Your task to perform on an android device: Show me recent news Image 0: 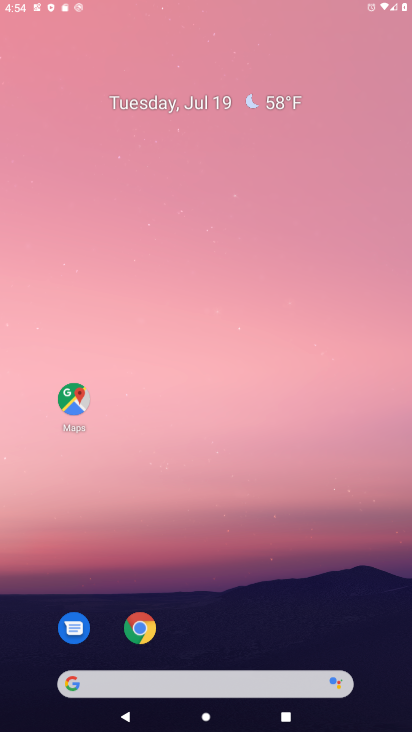
Step 0: press back button
Your task to perform on an android device: Show me recent news Image 1: 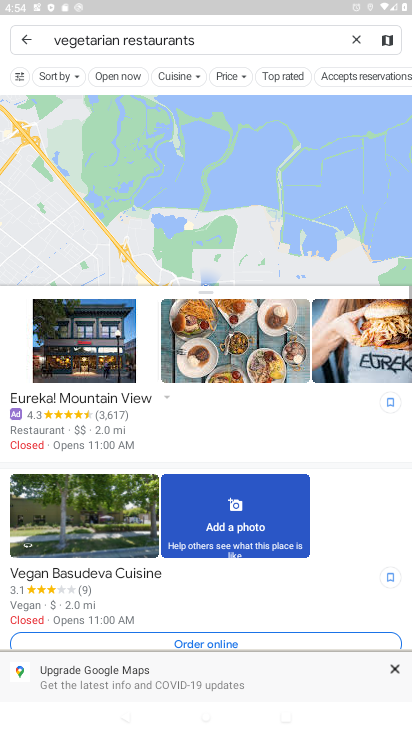
Step 1: drag from (218, 547) to (200, 141)
Your task to perform on an android device: Show me recent news Image 2: 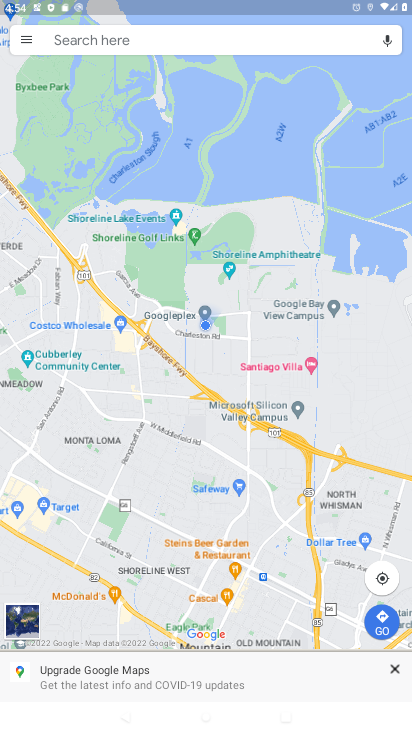
Step 2: press back button
Your task to perform on an android device: Show me recent news Image 3: 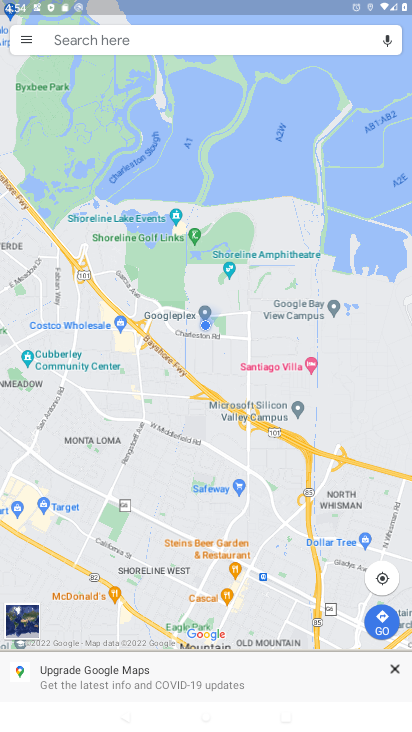
Step 3: press back button
Your task to perform on an android device: Show me recent news Image 4: 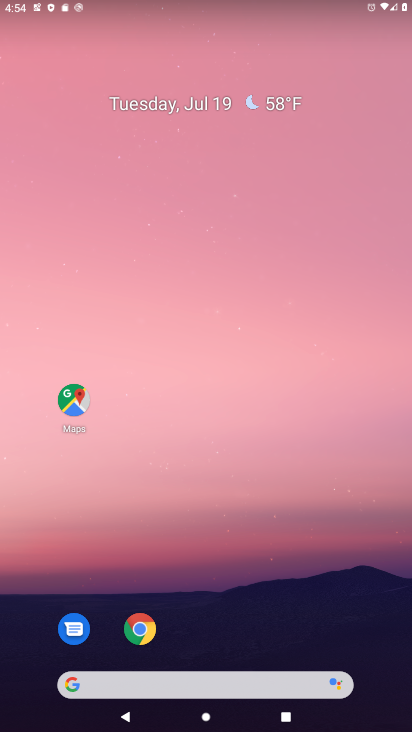
Step 4: drag from (226, 623) to (140, 12)
Your task to perform on an android device: Show me recent news Image 5: 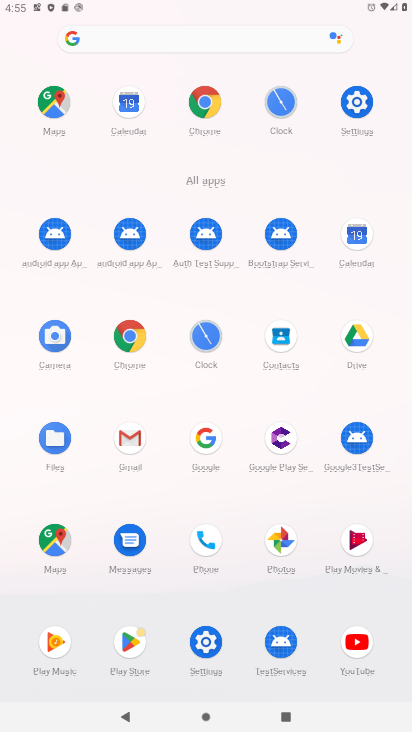
Step 5: click (205, 109)
Your task to perform on an android device: Show me recent news Image 6: 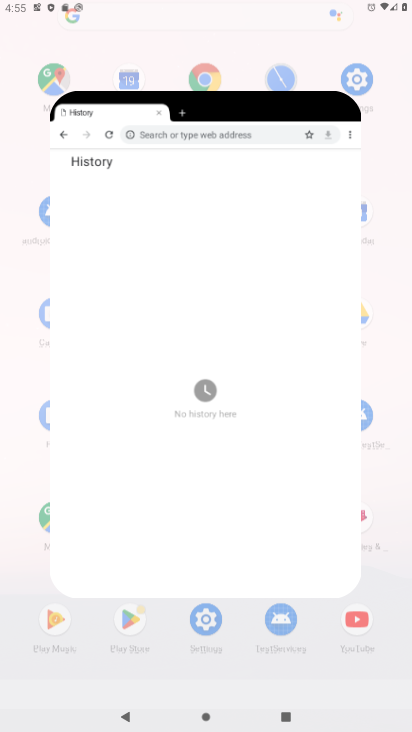
Step 6: click (206, 109)
Your task to perform on an android device: Show me recent news Image 7: 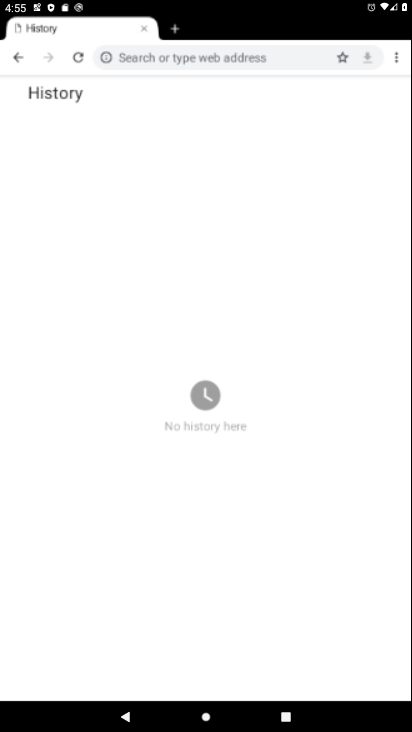
Step 7: click (206, 109)
Your task to perform on an android device: Show me recent news Image 8: 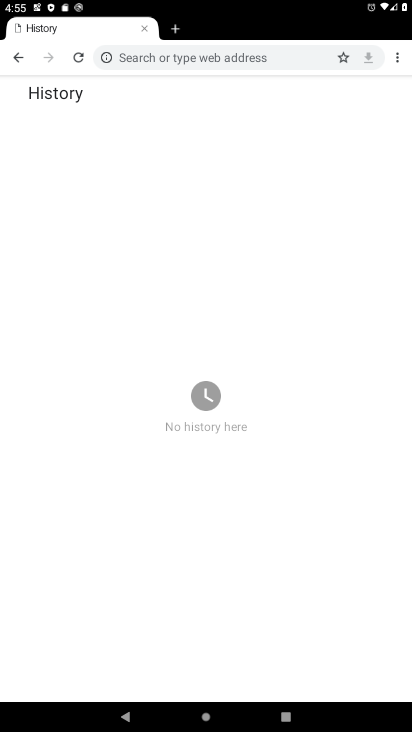
Step 8: click (143, 26)
Your task to perform on an android device: Show me recent news Image 9: 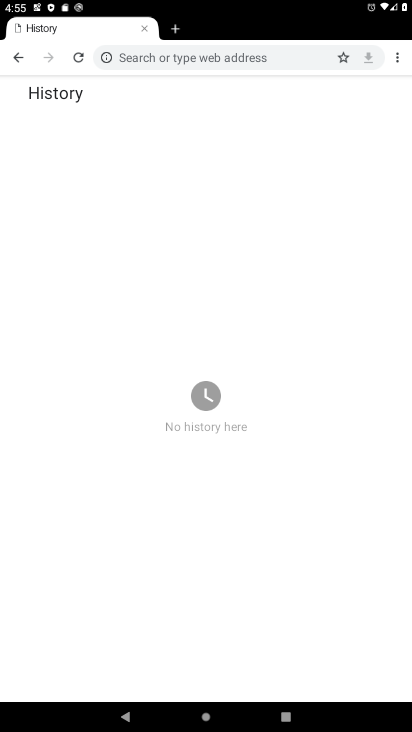
Step 9: click (145, 40)
Your task to perform on an android device: Show me recent news Image 10: 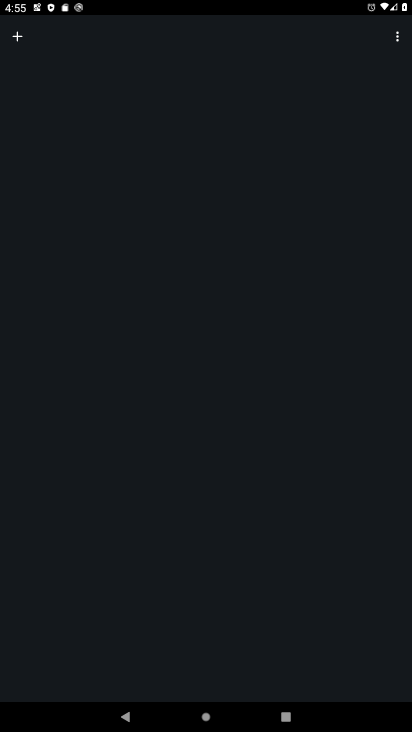
Step 10: press back button
Your task to perform on an android device: Show me recent news Image 11: 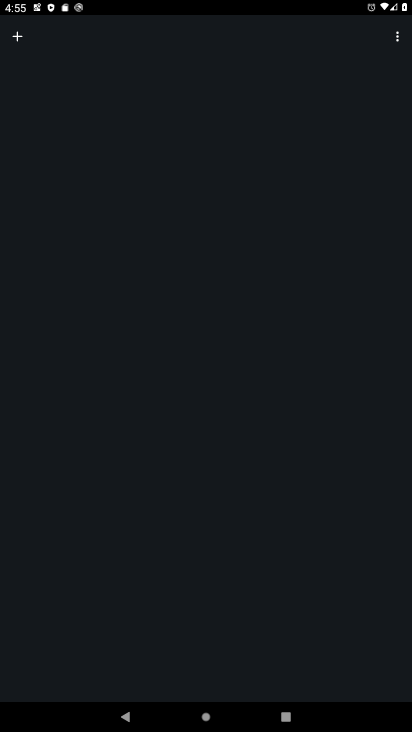
Step 11: press back button
Your task to perform on an android device: Show me recent news Image 12: 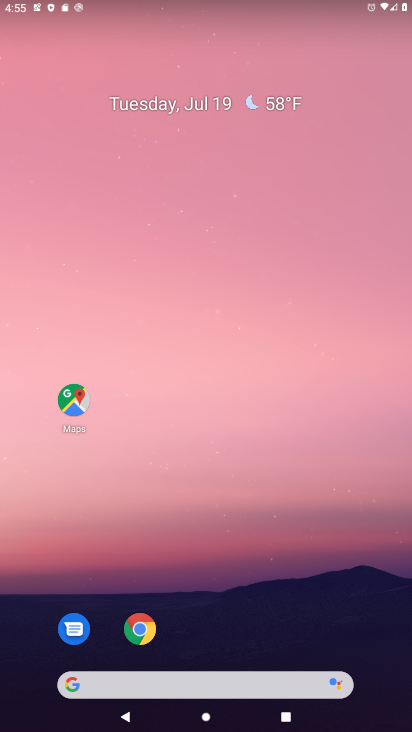
Step 12: drag from (213, 177) to (194, 117)
Your task to perform on an android device: Show me recent news Image 13: 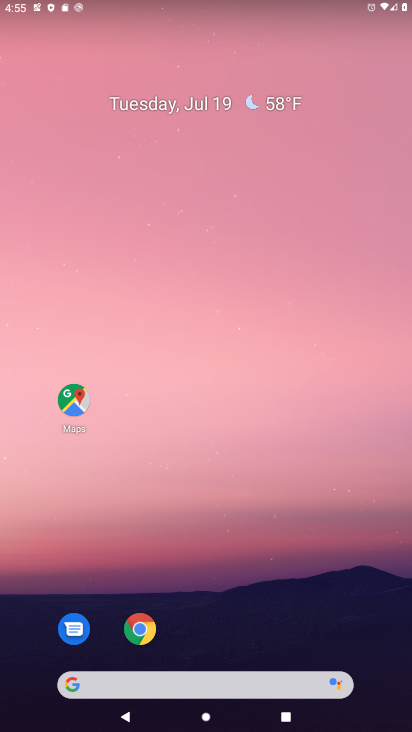
Step 13: drag from (233, 665) to (262, 209)
Your task to perform on an android device: Show me recent news Image 14: 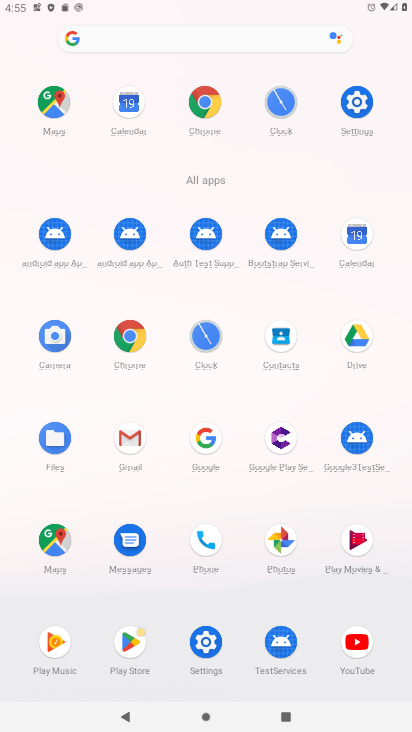
Step 14: click (218, 103)
Your task to perform on an android device: Show me recent news Image 15: 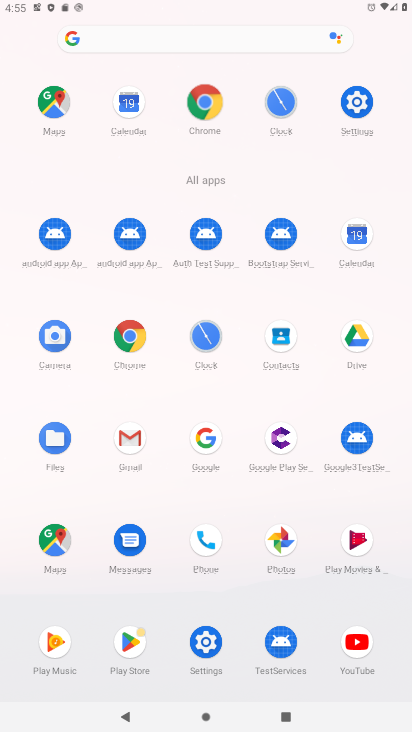
Step 15: click (191, 102)
Your task to perform on an android device: Show me recent news Image 16: 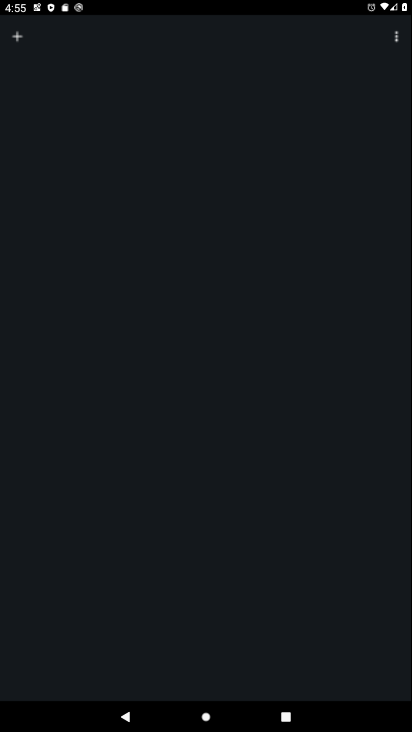
Step 16: click (195, 99)
Your task to perform on an android device: Show me recent news Image 17: 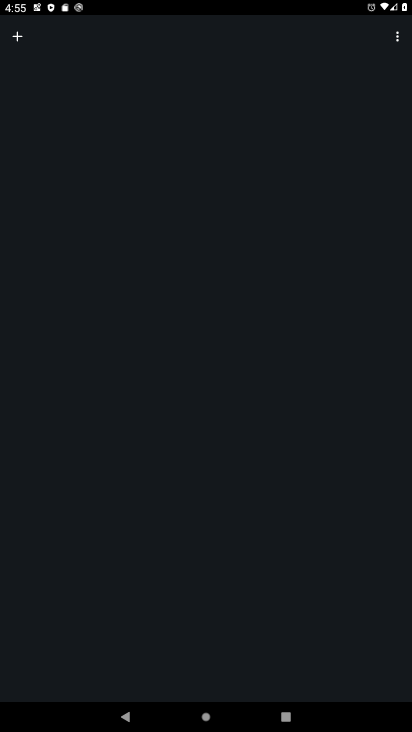
Step 17: task complete